Your task to perform on an android device: turn smart compose on in the gmail app Image 0: 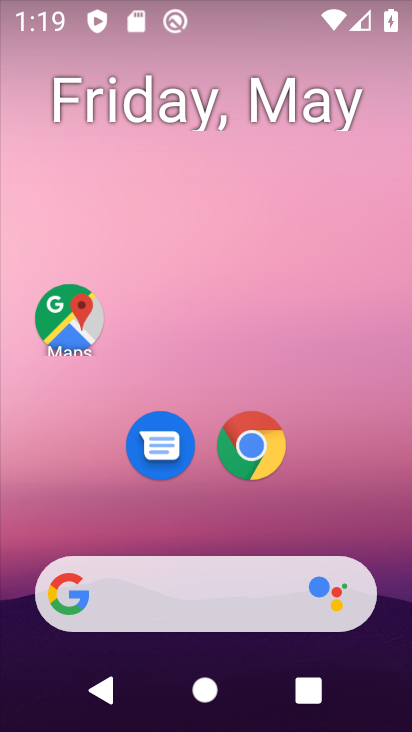
Step 0: drag from (398, 603) to (309, 61)
Your task to perform on an android device: turn smart compose on in the gmail app Image 1: 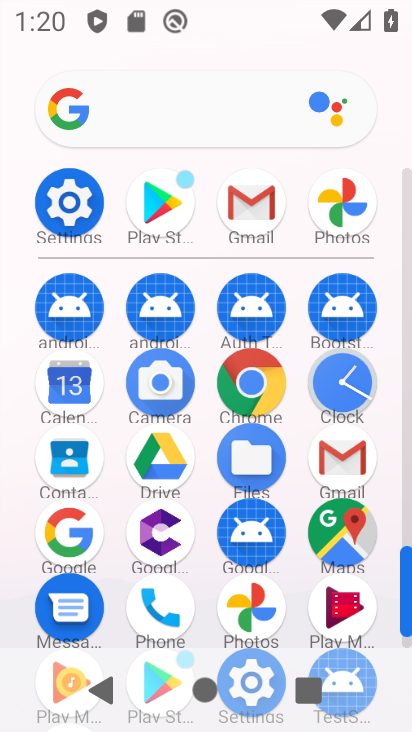
Step 1: click (403, 641)
Your task to perform on an android device: turn smart compose on in the gmail app Image 2: 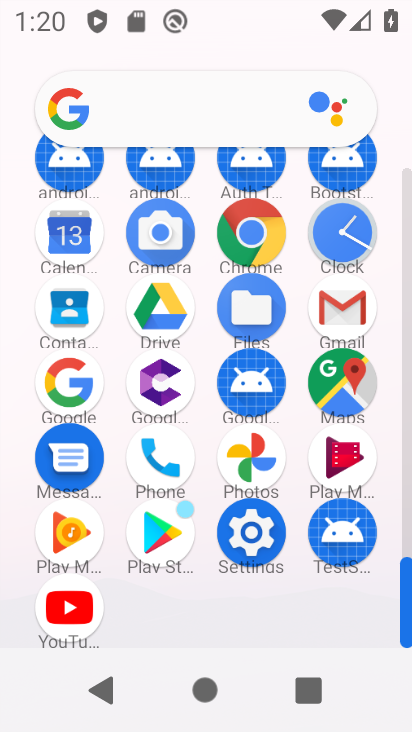
Step 2: click (340, 304)
Your task to perform on an android device: turn smart compose on in the gmail app Image 3: 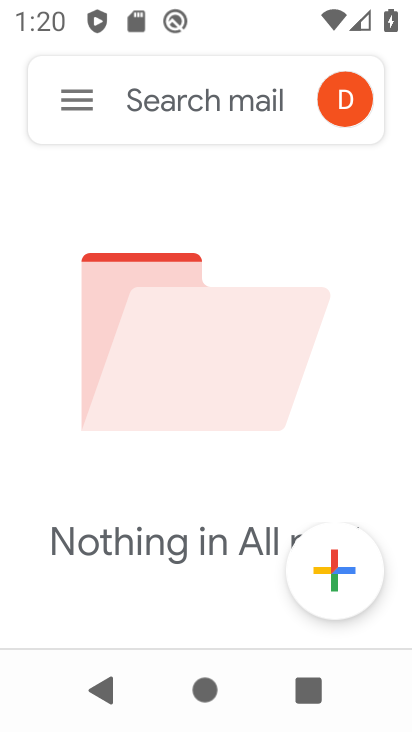
Step 3: click (74, 102)
Your task to perform on an android device: turn smart compose on in the gmail app Image 4: 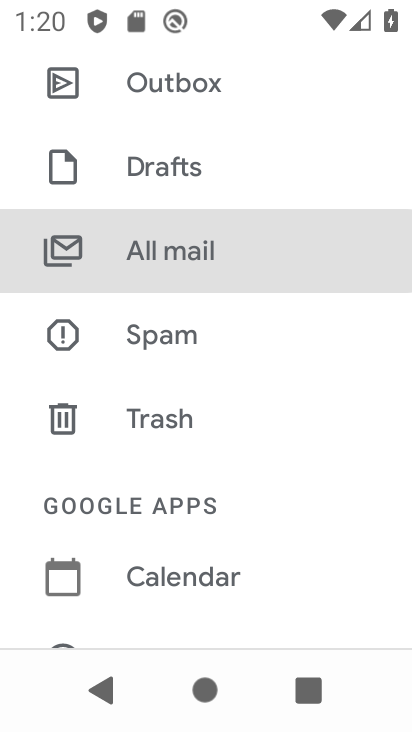
Step 4: drag from (262, 585) to (325, 142)
Your task to perform on an android device: turn smart compose on in the gmail app Image 5: 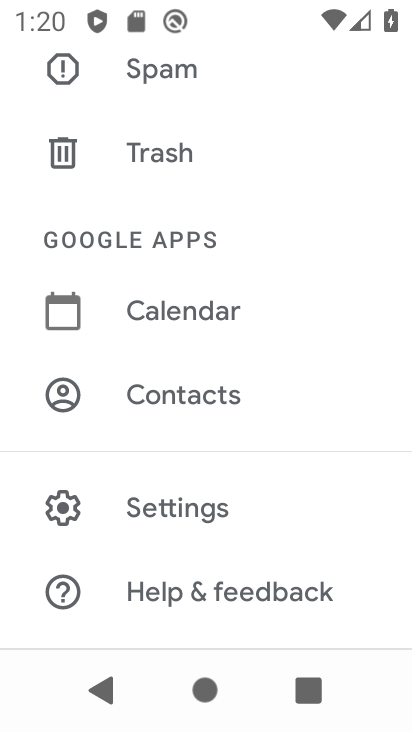
Step 5: click (182, 509)
Your task to perform on an android device: turn smart compose on in the gmail app Image 6: 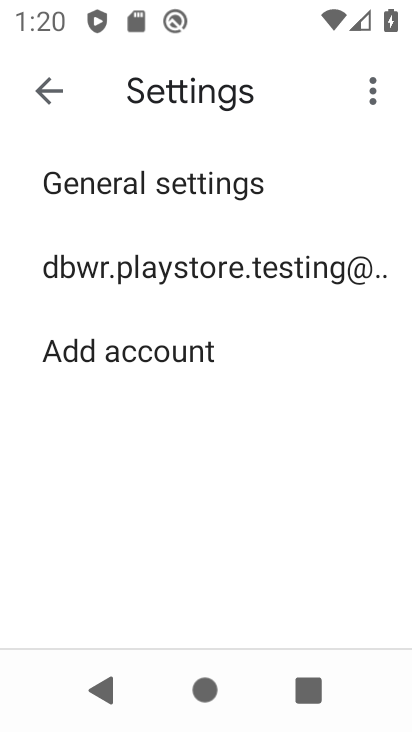
Step 6: click (167, 257)
Your task to perform on an android device: turn smart compose on in the gmail app Image 7: 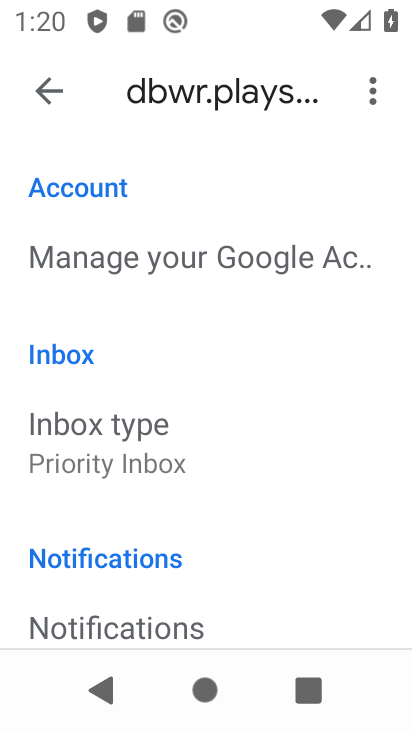
Step 7: task complete